Your task to perform on an android device: see creations saved in the google photos Image 0: 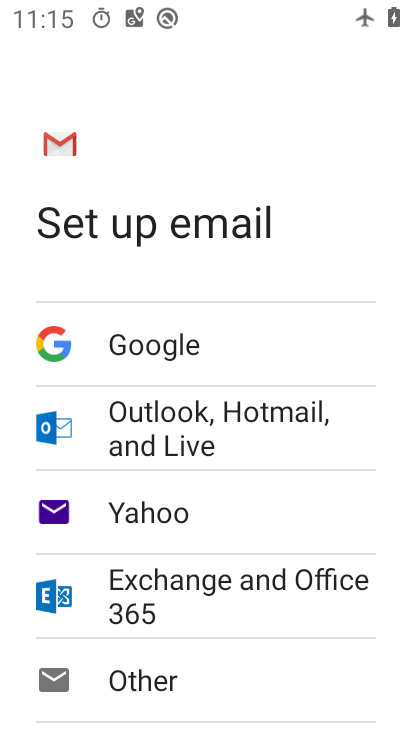
Step 0: press home button
Your task to perform on an android device: see creations saved in the google photos Image 1: 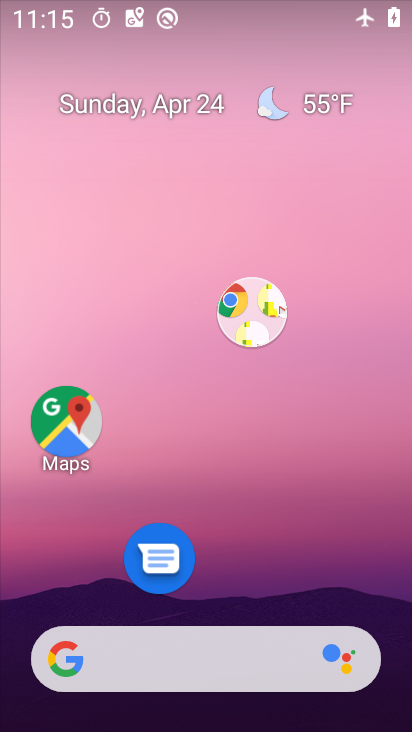
Step 1: drag from (252, 696) to (137, 4)
Your task to perform on an android device: see creations saved in the google photos Image 2: 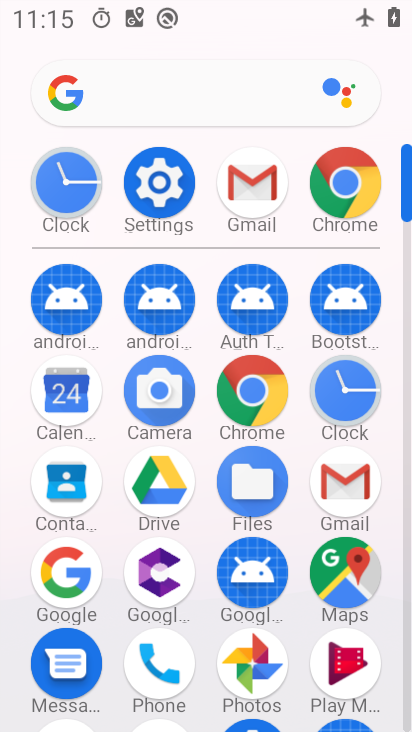
Step 2: click (257, 665)
Your task to perform on an android device: see creations saved in the google photos Image 3: 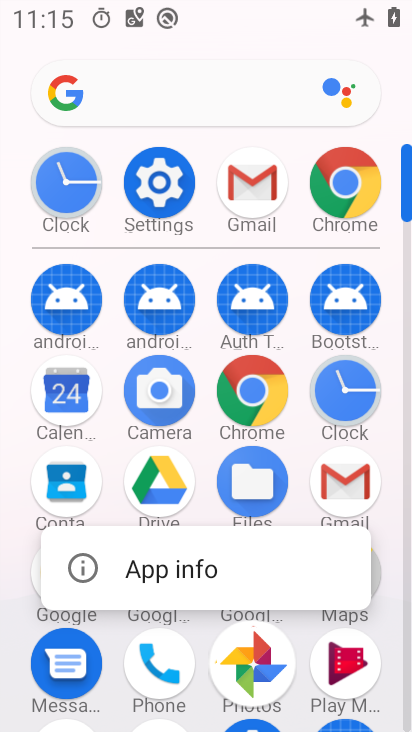
Step 3: click (257, 664)
Your task to perform on an android device: see creations saved in the google photos Image 4: 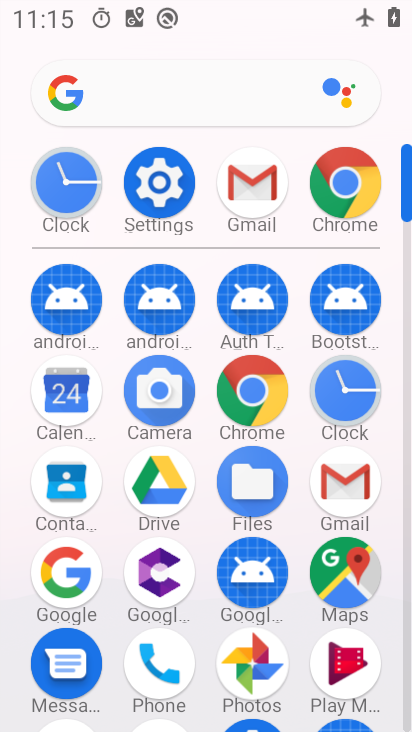
Step 4: click (257, 664)
Your task to perform on an android device: see creations saved in the google photos Image 5: 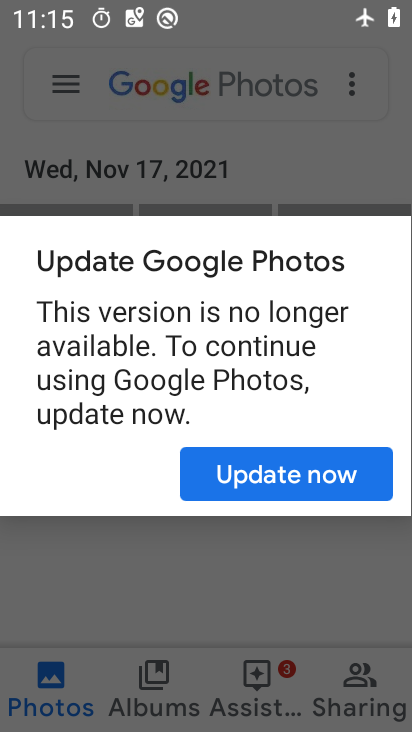
Step 5: click (306, 486)
Your task to perform on an android device: see creations saved in the google photos Image 6: 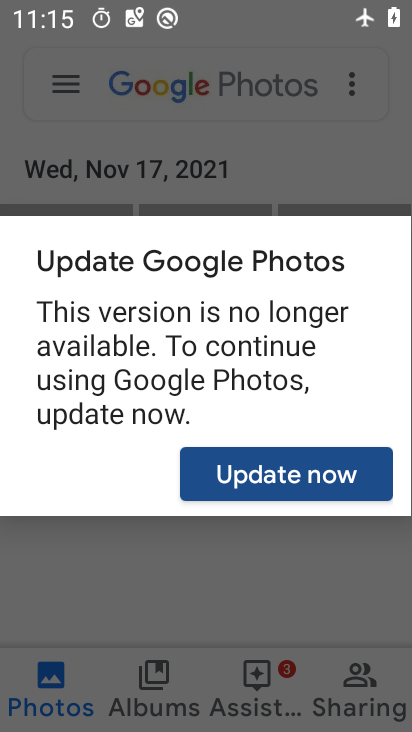
Step 6: click (307, 484)
Your task to perform on an android device: see creations saved in the google photos Image 7: 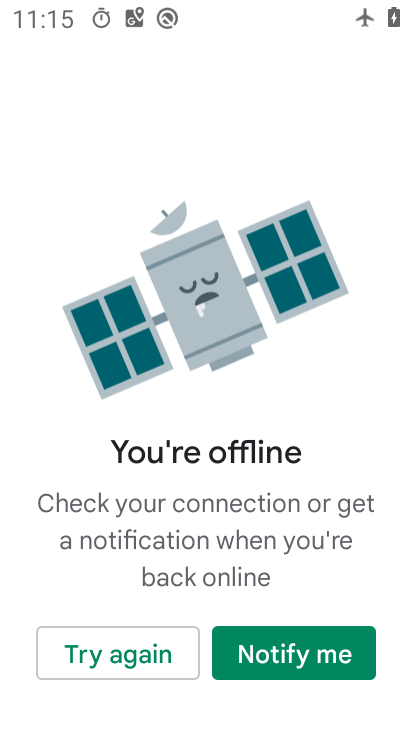
Step 7: click (300, 656)
Your task to perform on an android device: see creations saved in the google photos Image 8: 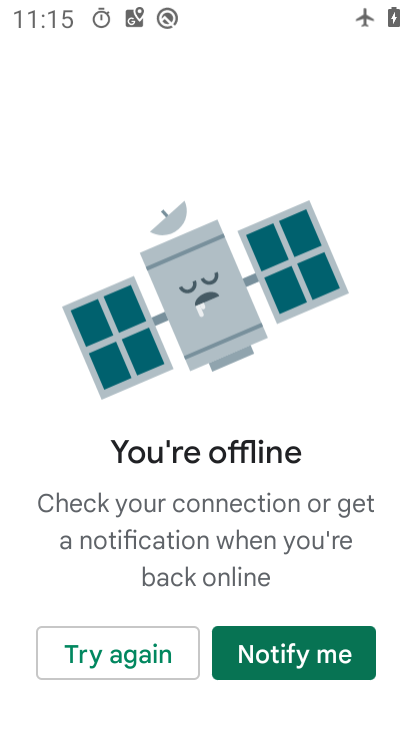
Step 8: click (301, 649)
Your task to perform on an android device: see creations saved in the google photos Image 9: 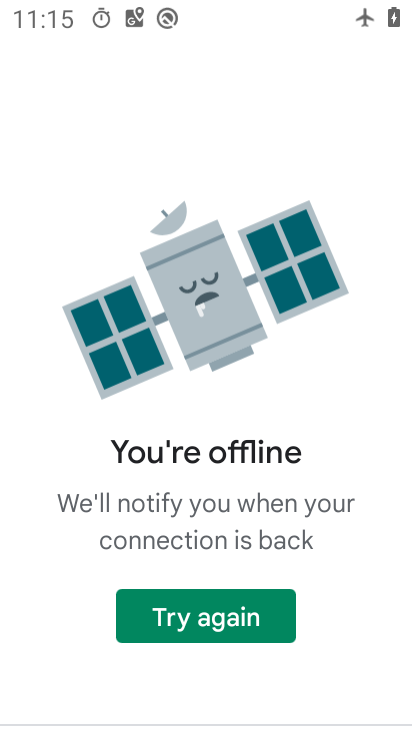
Step 9: click (205, 266)
Your task to perform on an android device: see creations saved in the google photos Image 10: 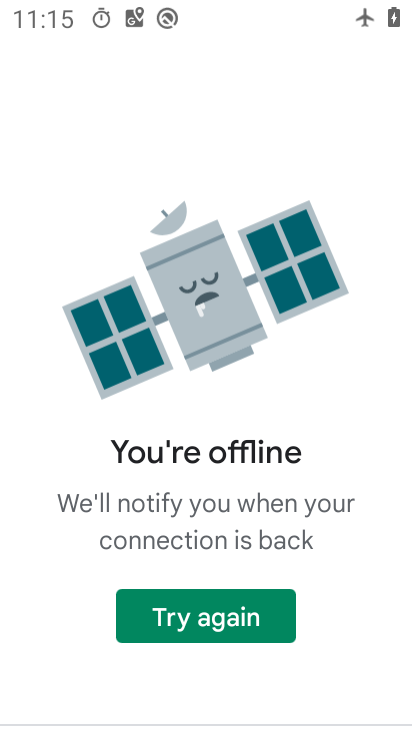
Step 10: click (205, 266)
Your task to perform on an android device: see creations saved in the google photos Image 11: 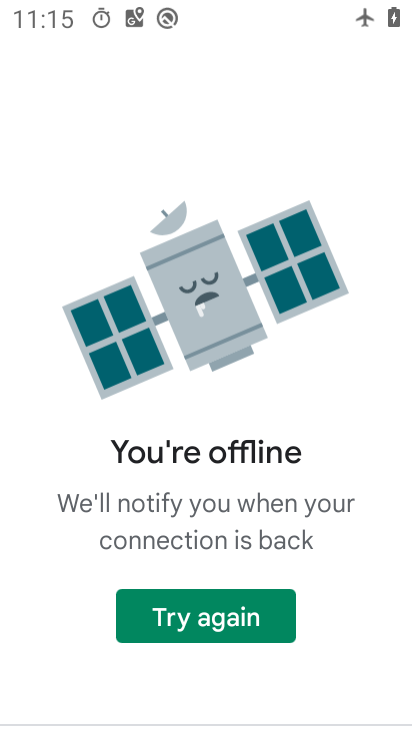
Step 11: task complete